Your task to perform on an android device: change notification settings in the gmail app Image 0: 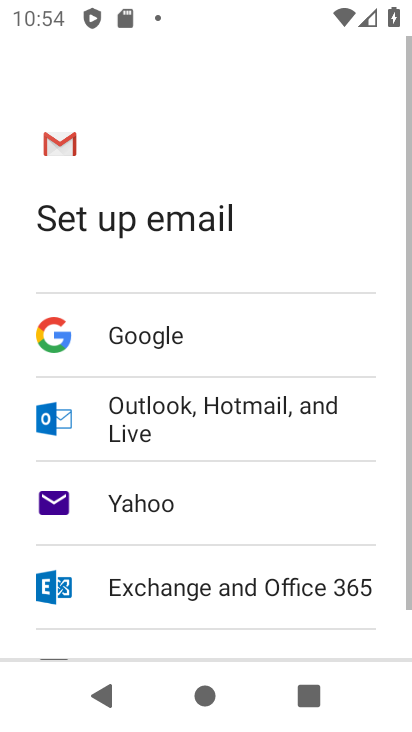
Step 0: press home button
Your task to perform on an android device: change notification settings in the gmail app Image 1: 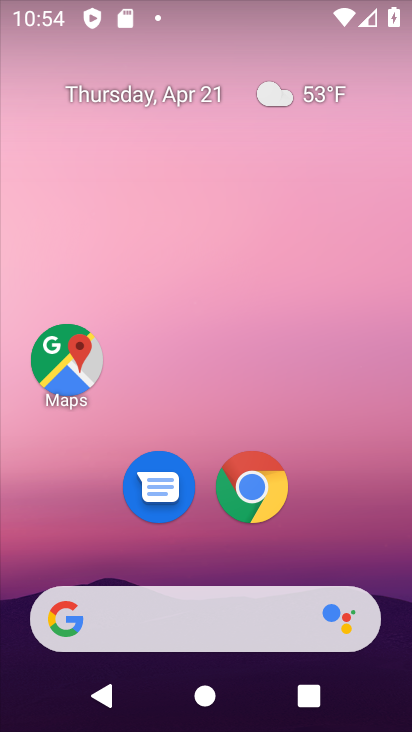
Step 1: drag from (407, 394) to (410, 84)
Your task to perform on an android device: change notification settings in the gmail app Image 2: 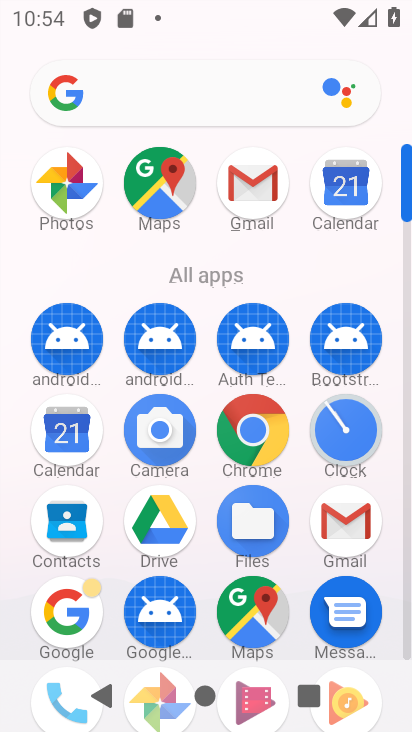
Step 2: click (335, 524)
Your task to perform on an android device: change notification settings in the gmail app Image 3: 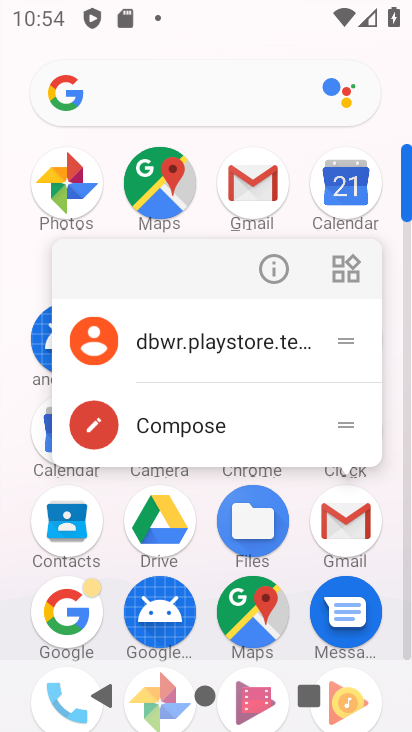
Step 3: click (349, 515)
Your task to perform on an android device: change notification settings in the gmail app Image 4: 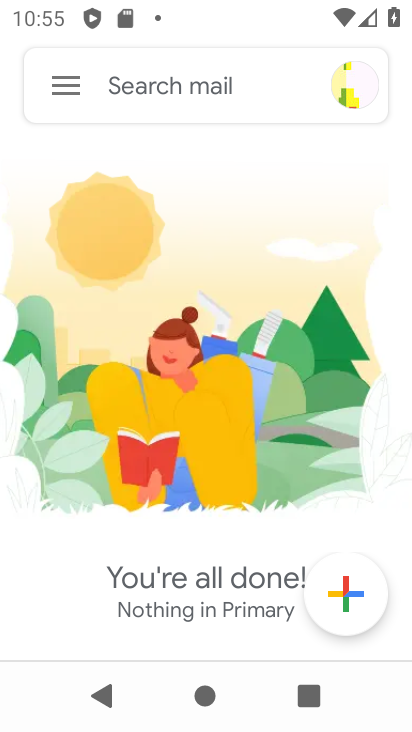
Step 4: click (74, 84)
Your task to perform on an android device: change notification settings in the gmail app Image 5: 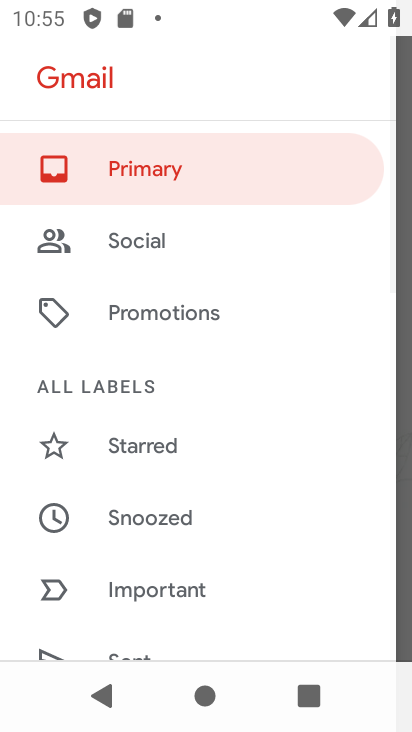
Step 5: drag from (235, 604) to (302, 143)
Your task to perform on an android device: change notification settings in the gmail app Image 6: 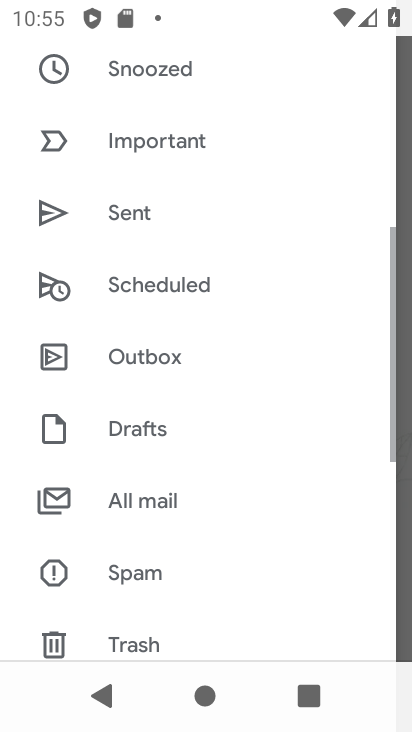
Step 6: drag from (277, 510) to (347, 214)
Your task to perform on an android device: change notification settings in the gmail app Image 7: 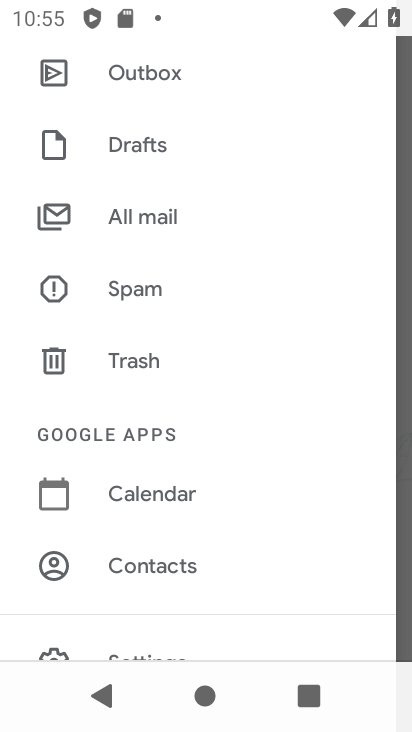
Step 7: drag from (218, 501) to (215, 218)
Your task to perform on an android device: change notification settings in the gmail app Image 8: 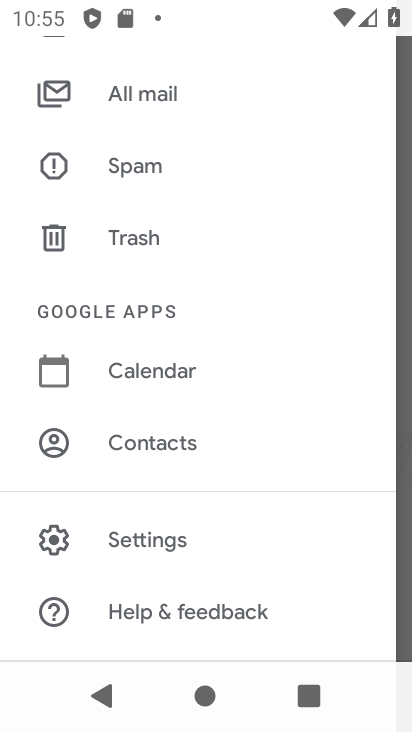
Step 8: click (149, 536)
Your task to perform on an android device: change notification settings in the gmail app Image 9: 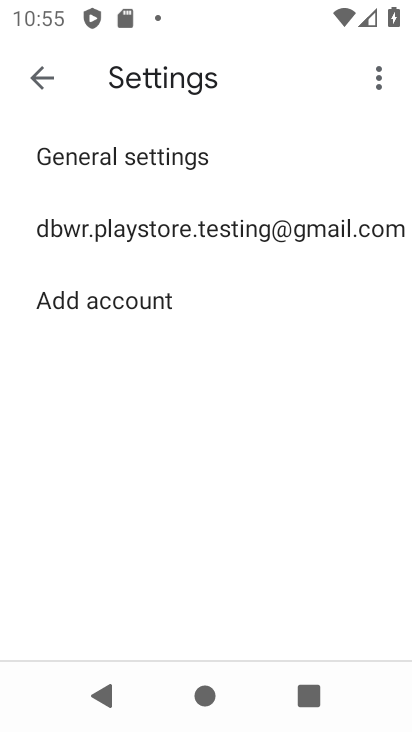
Step 9: click (173, 227)
Your task to perform on an android device: change notification settings in the gmail app Image 10: 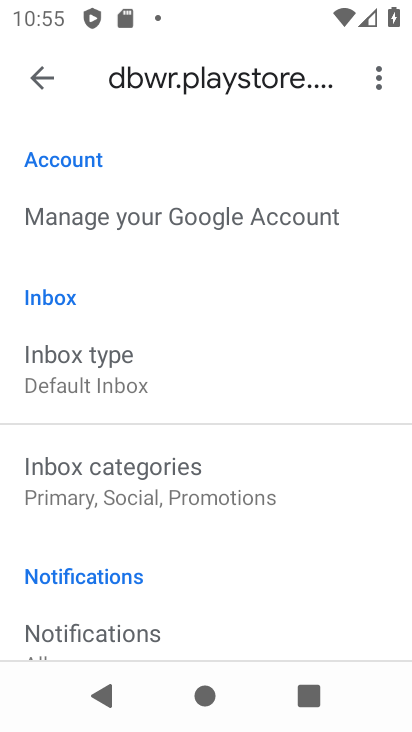
Step 10: drag from (189, 614) to (246, 206)
Your task to perform on an android device: change notification settings in the gmail app Image 11: 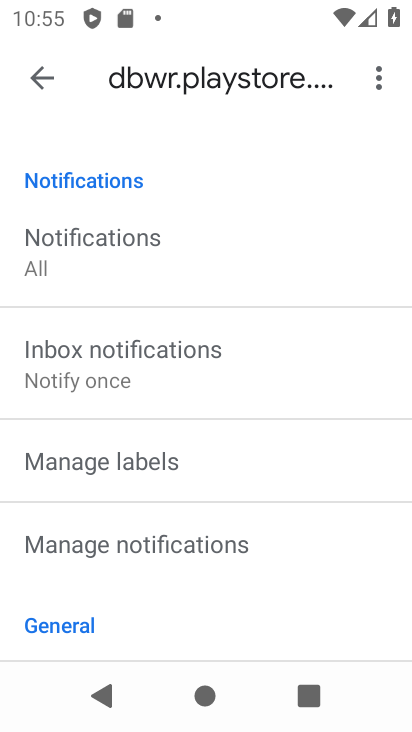
Step 11: click (86, 252)
Your task to perform on an android device: change notification settings in the gmail app Image 12: 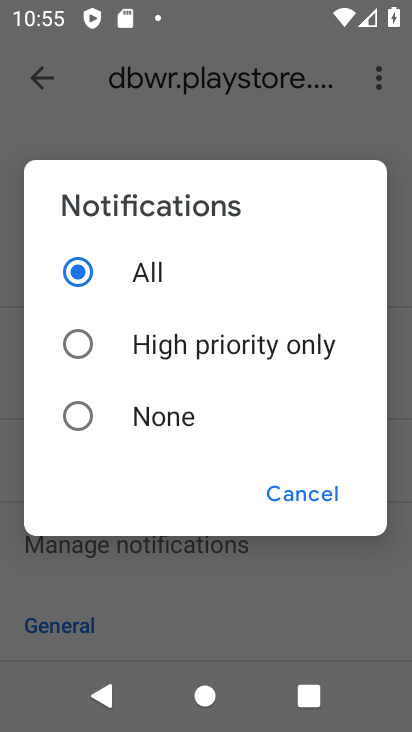
Step 12: click (84, 358)
Your task to perform on an android device: change notification settings in the gmail app Image 13: 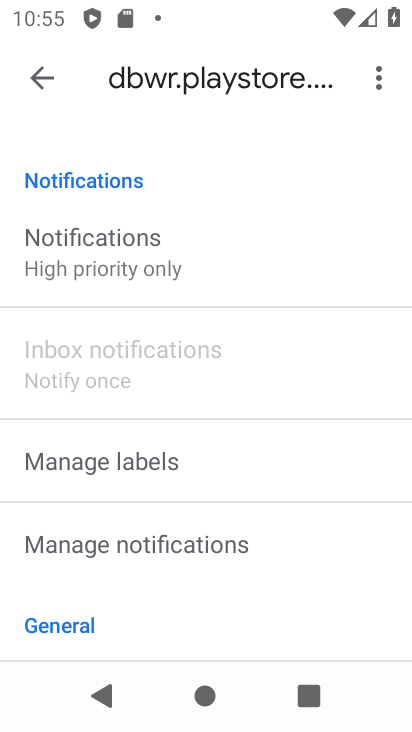
Step 13: task complete